Your task to perform on an android device: turn off wifi Image 0: 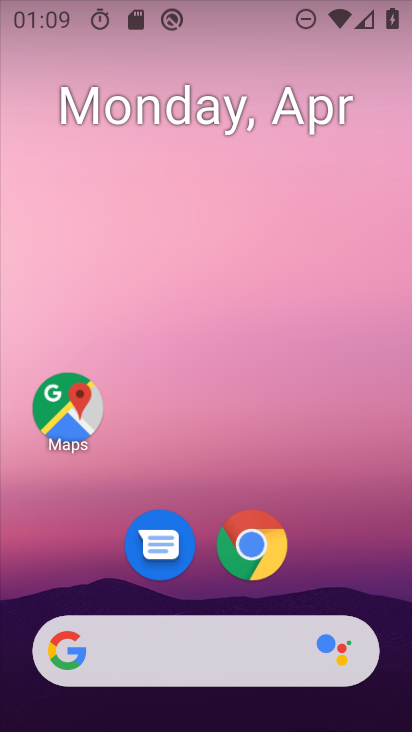
Step 0: drag from (315, 512) to (329, 255)
Your task to perform on an android device: turn off wifi Image 1: 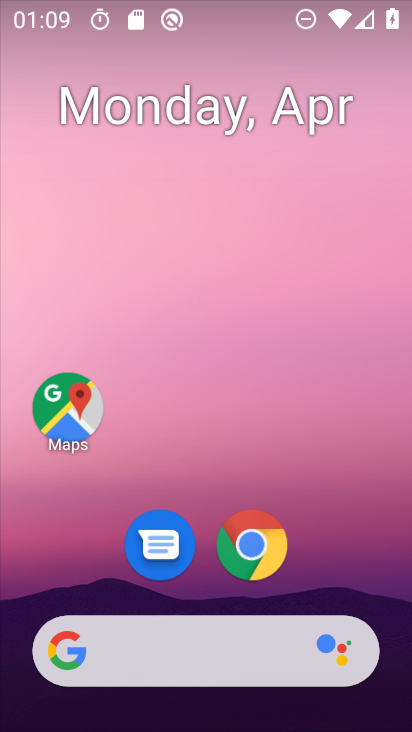
Step 1: drag from (340, 468) to (342, 205)
Your task to perform on an android device: turn off wifi Image 2: 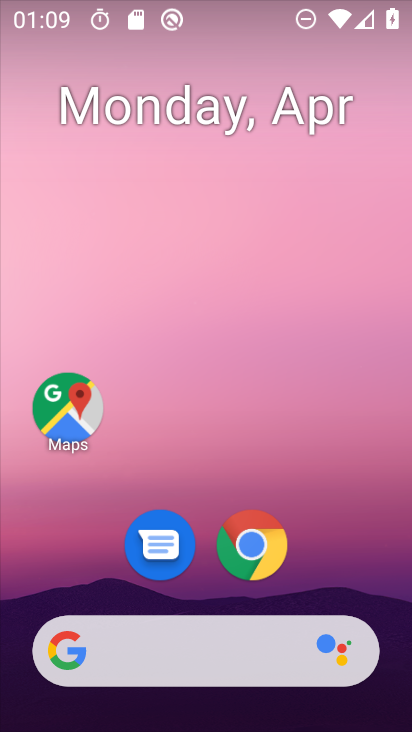
Step 2: drag from (321, 552) to (316, 244)
Your task to perform on an android device: turn off wifi Image 3: 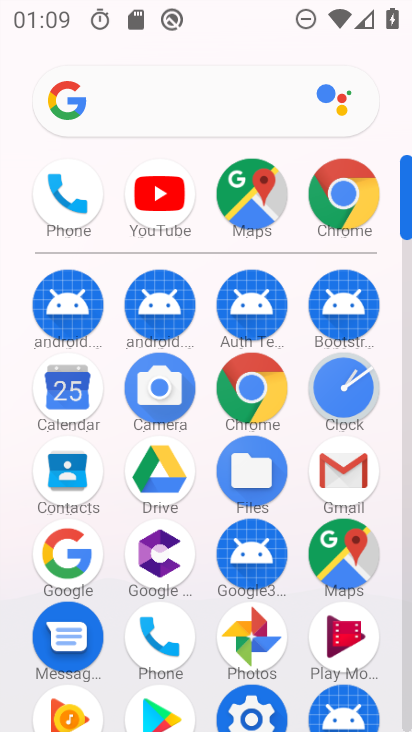
Step 3: drag from (293, 680) to (290, 491)
Your task to perform on an android device: turn off wifi Image 4: 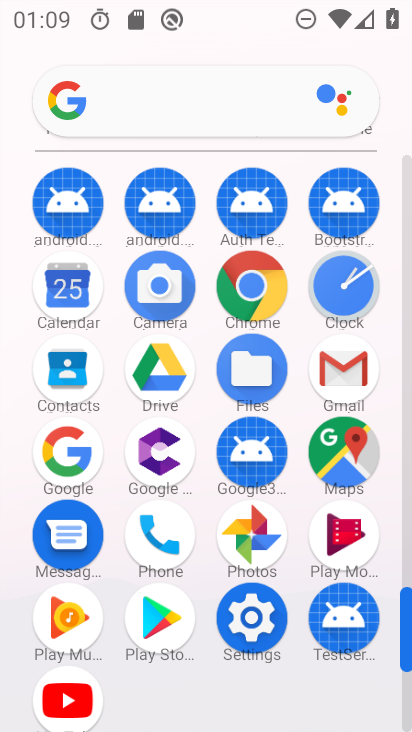
Step 4: click (264, 622)
Your task to perform on an android device: turn off wifi Image 5: 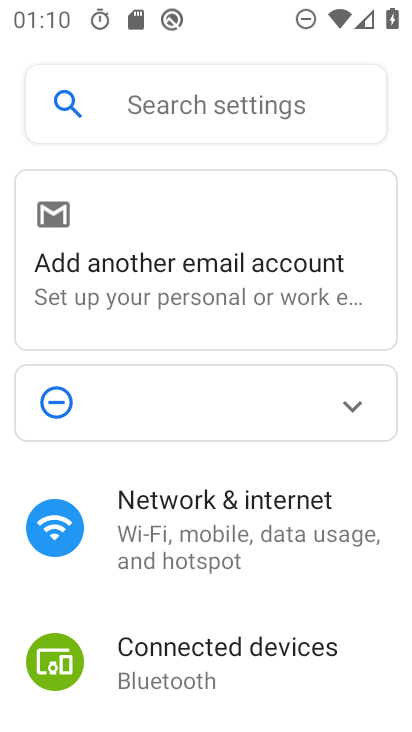
Step 5: click (209, 530)
Your task to perform on an android device: turn off wifi Image 6: 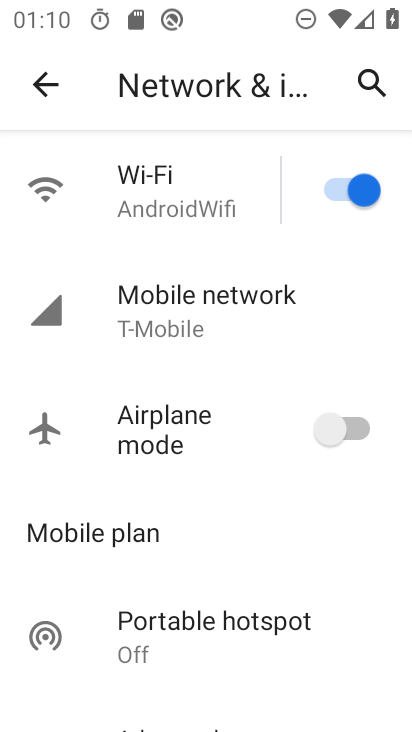
Step 6: click (339, 191)
Your task to perform on an android device: turn off wifi Image 7: 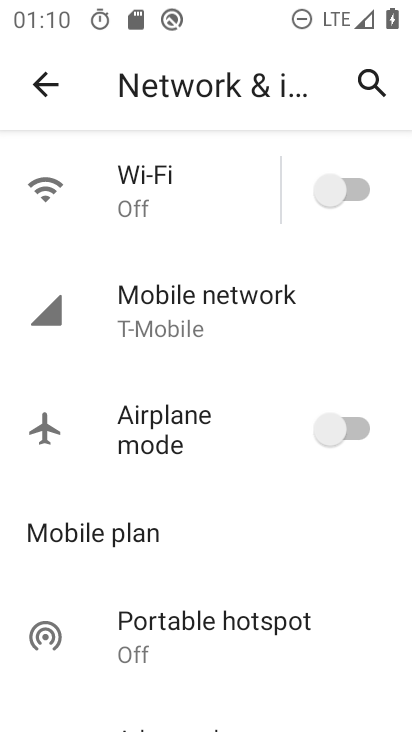
Step 7: task complete